Your task to perform on an android device: Go to Google Image 0: 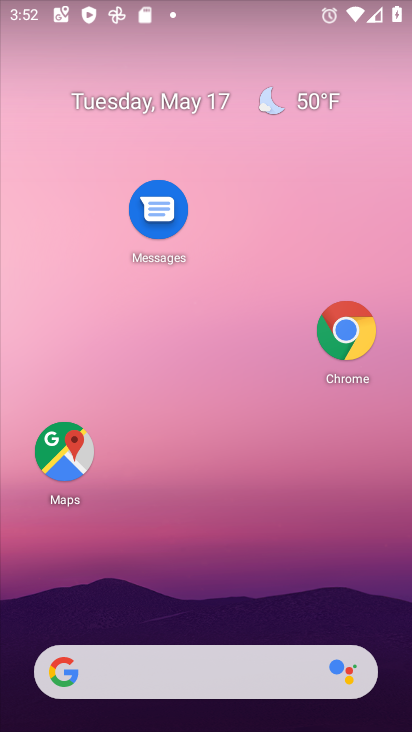
Step 0: drag from (251, 561) to (275, 212)
Your task to perform on an android device: Go to Google Image 1: 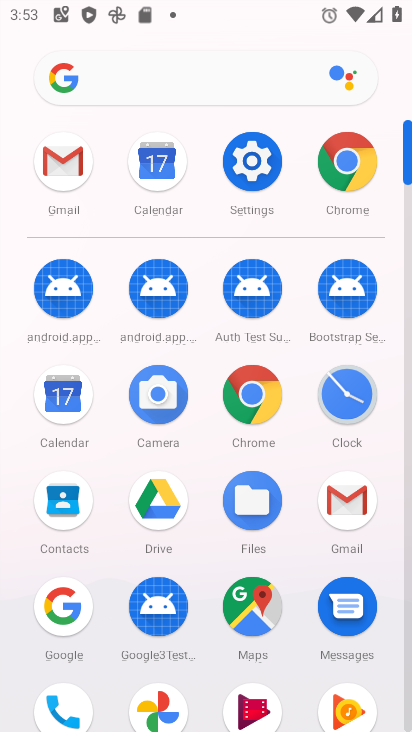
Step 1: click (346, 196)
Your task to perform on an android device: Go to Google Image 2: 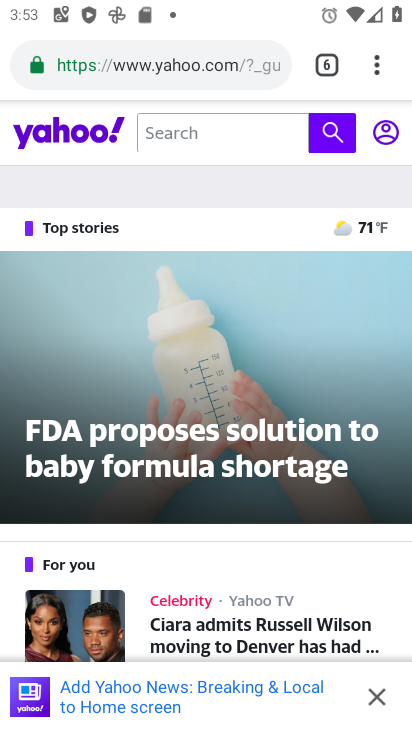
Step 2: click (192, 66)
Your task to perform on an android device: Go to Google Image 3: 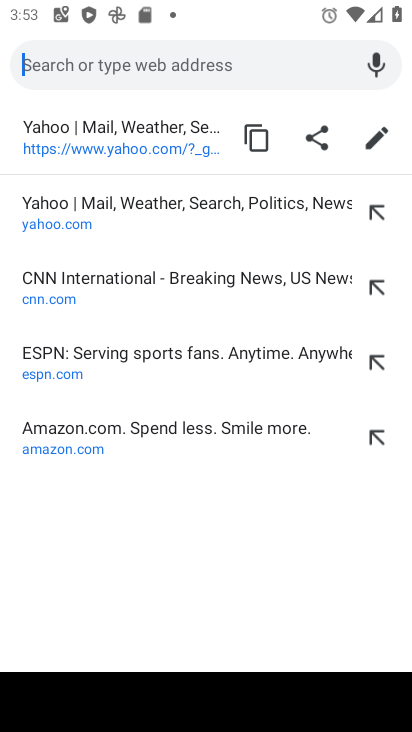
Step 3: type "googl.com"
Your task to perform on an android device: Go to Google Image 4: 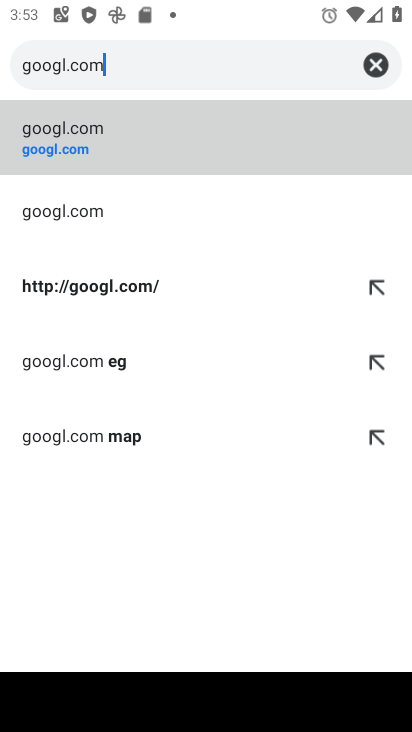
Step 4: click (142, 133)
Your task to perform on an android device: Go to Google Image 5: 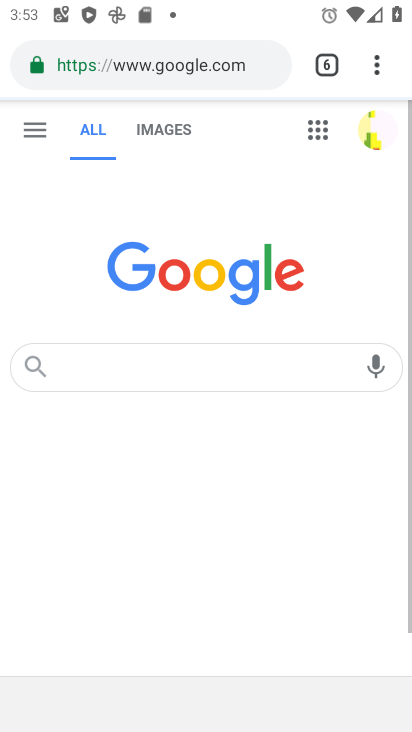
Step 5: task complete